Your task to perform on an android device: change the upload size in google photos Image 0: 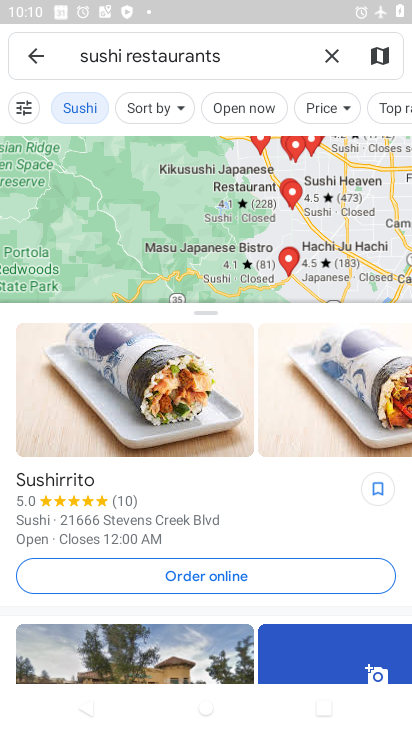
Step 0: press home button
Your task to perform on an android device: change the upload size in google photos Image 1: 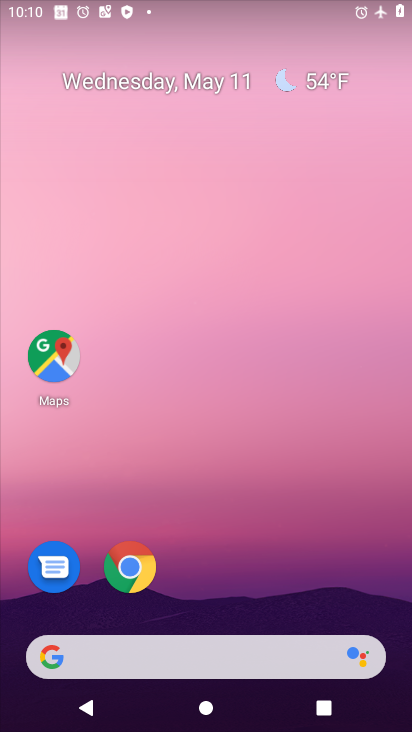
Step 1: drag from (197, 579) to (335, 4)
Your task to perform on an android device: change the upload size in google photos Image 2: 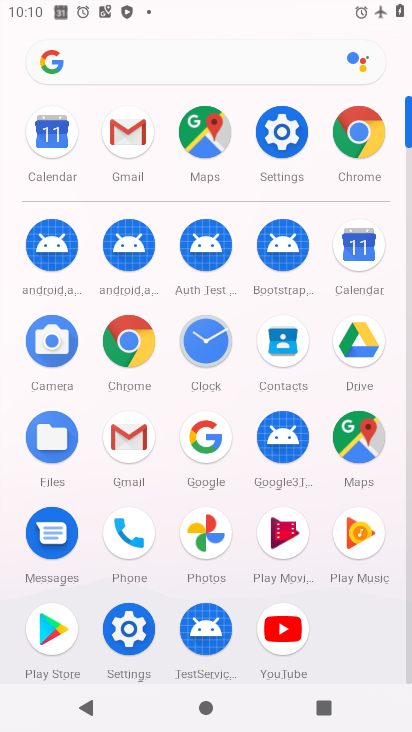
Step 2: click (206, 539)
Your task to perform on an android device: change the upload size in google photos Image 3: 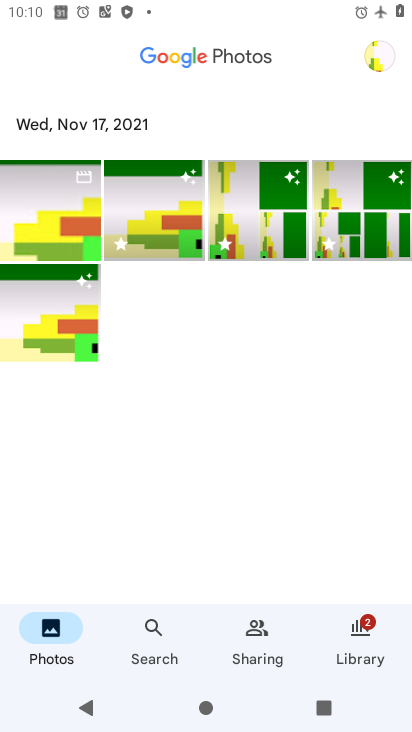
Step 3: click (379, 49)
Your task to perform on an android device: change the upload size in google photos Image 4: 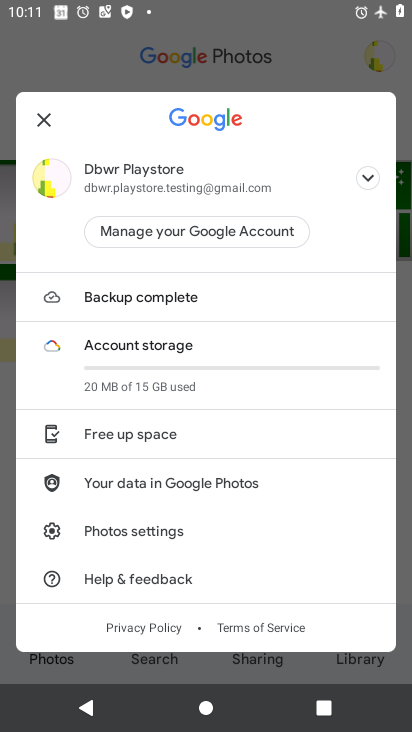
Step 4: drag from (180, 521) to (207, 309)
Your task to perform on an android device: change the upload size in google photos Image 5: 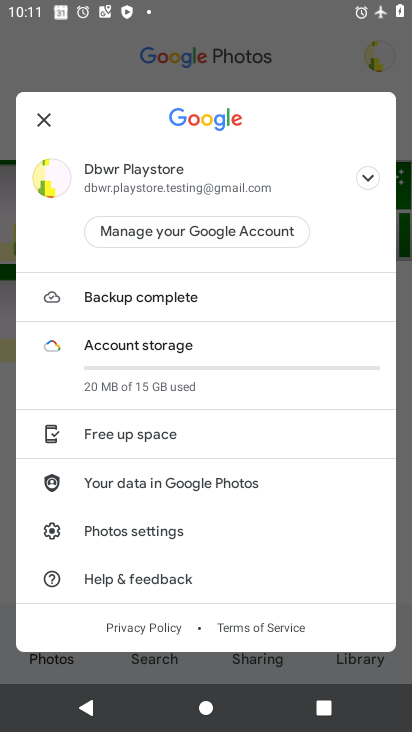
Step 5: click (144, 524)
Your task to perform on an android device: change the upload size in google photos Image 6: 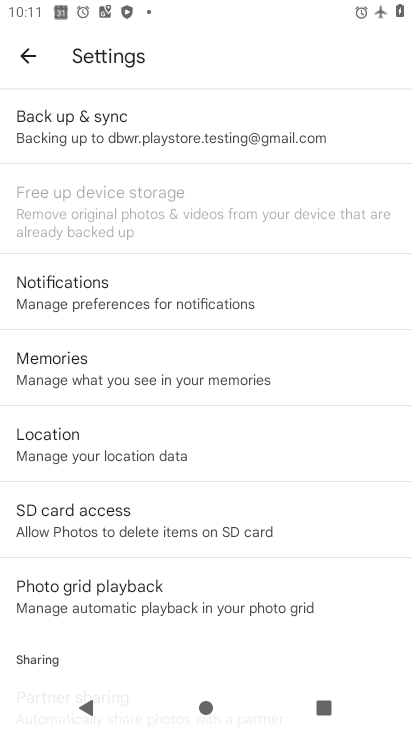
Step 6: click (164, 120)
Your task to perform on an android device: change the upload size in google photos Image 7: 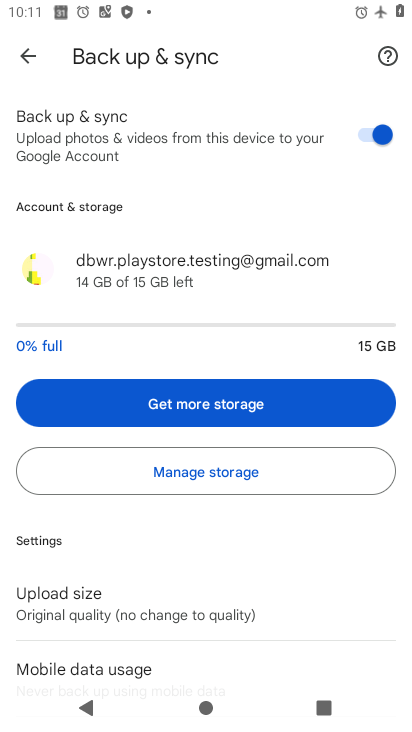
Step 7: drag from (175, 477) to (199, 272)
Your task to perform on an android device: change the upload size in google photos Image 8: 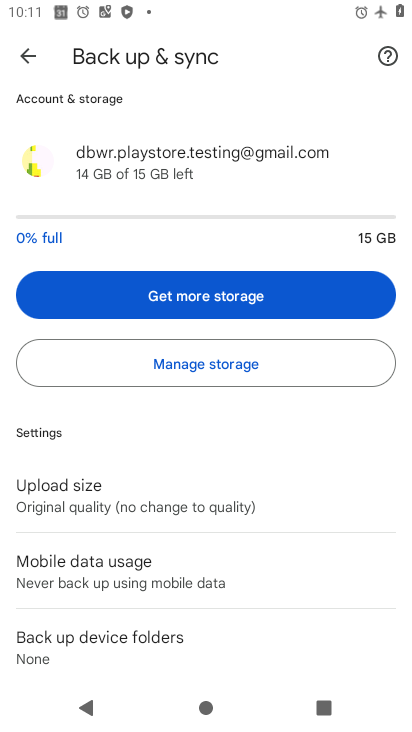
Step 8: click (96, 499)
Your task to perform on an android device: change the upload size in google photos Image 9: 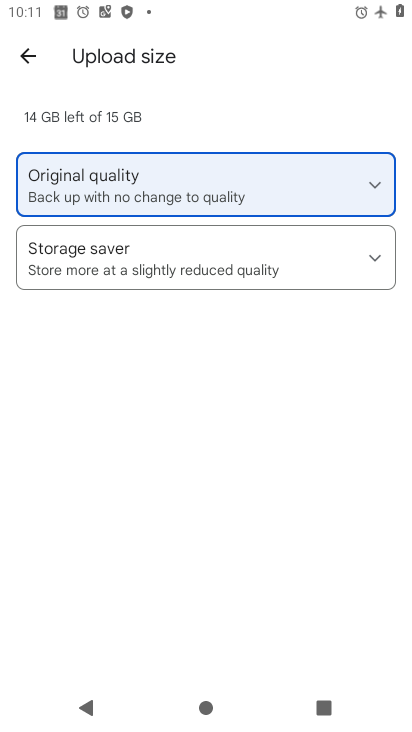
Step 9: click (108, 268)
Your task to perform on an android device: change the upload size in google photos Image 10: 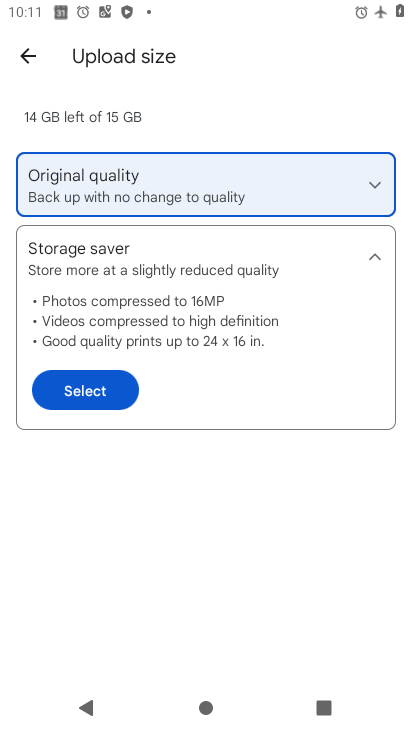
Step 10: click (91, 401)
Your task to perform on an android device: change the upload size in google photos Image 11: 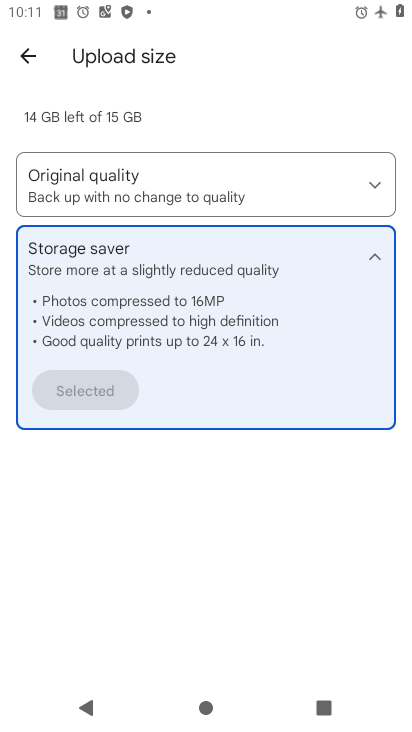
Step 11: task complete